Your task to perform on an android device: Search for Mexican restaurants on Maps Image 0: 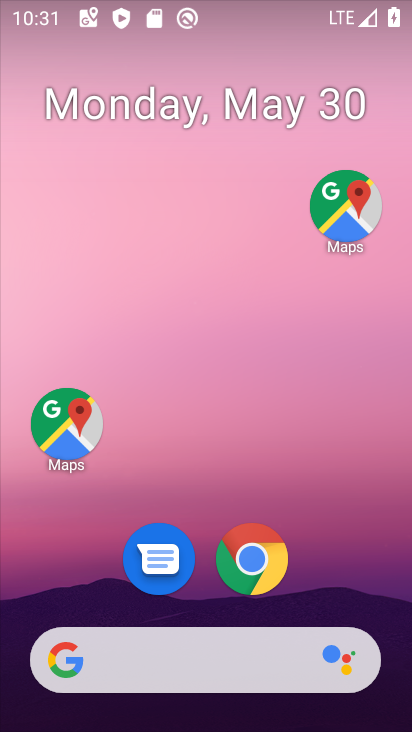
Step 0: click (346, 198)
Your task to perform on an android device: Search for Mexican restaurants on Maps Image 1: 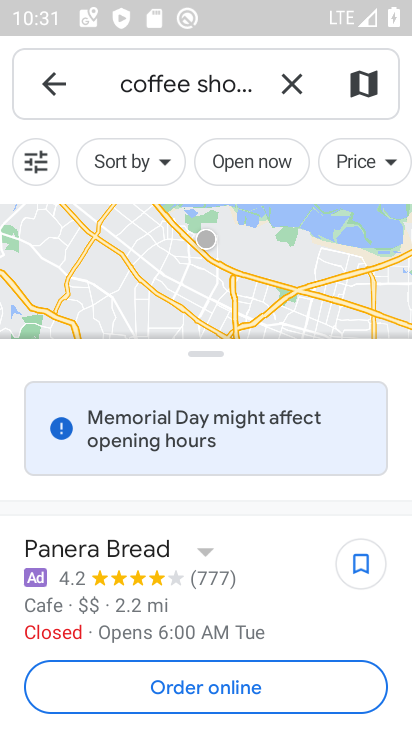
Step 1: click (222, 71)
Your task to perform on an android device: Search for Mexican restaurants on Maps Image 2: 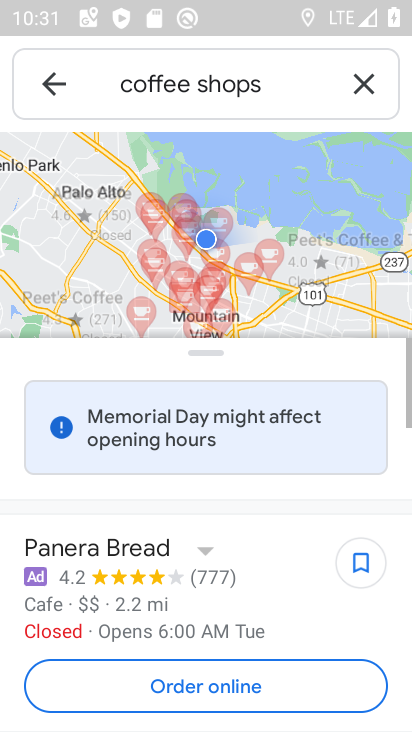
Step 2: click (367, 82)
Your task to perform on an android device: Search for Mexican restaurants on Maps Image 3: 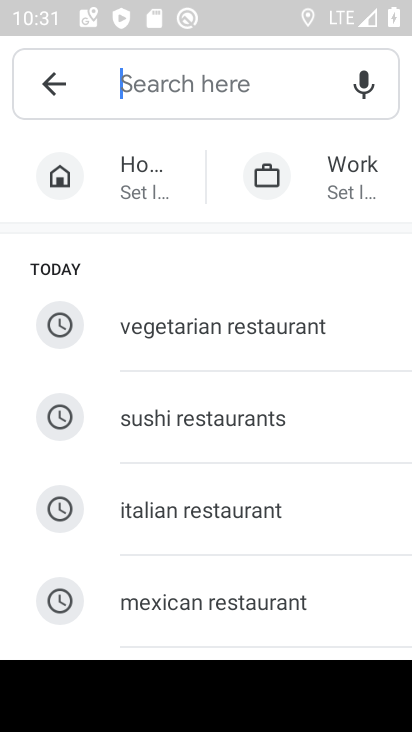
Step 3: click (277, 601)
Your task to perform on an android device: Search for Mexican restaurants on Maps Image 4: 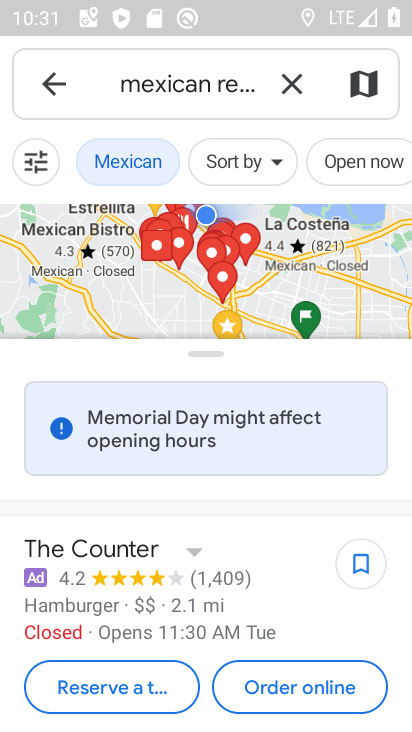
Step 4: type "s"
Your task to perform on an android device: Search for Mexican restaurants on Maps Image 5: 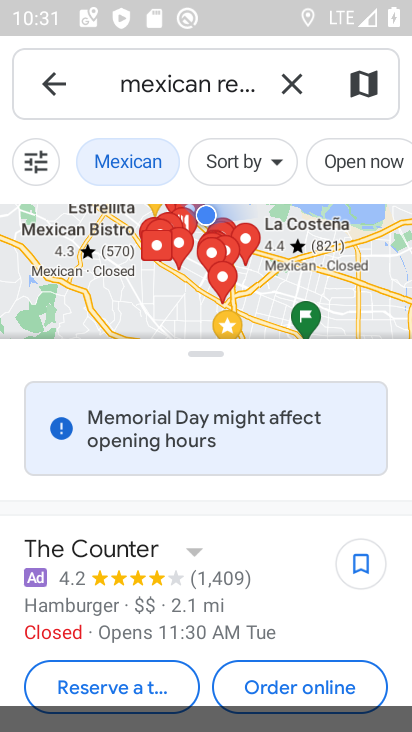
Step 5: type ""
Your task to perform on an android device: Search for Mexican restaurants on Maps Image 6: 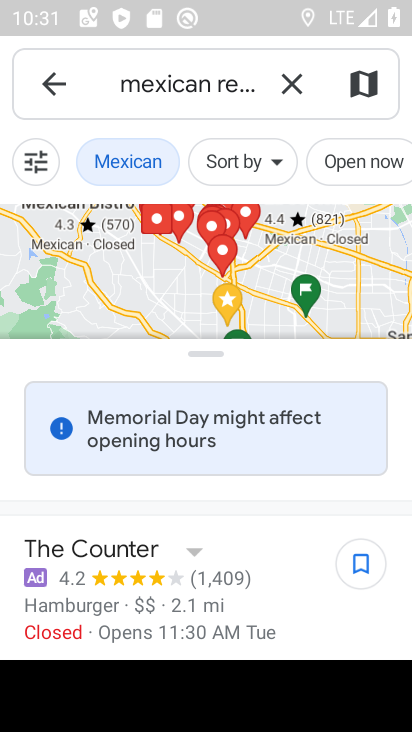
Step 6: press enter
Your task to perform on an android device: Search for Mexican restaurants on Maps Image 7: 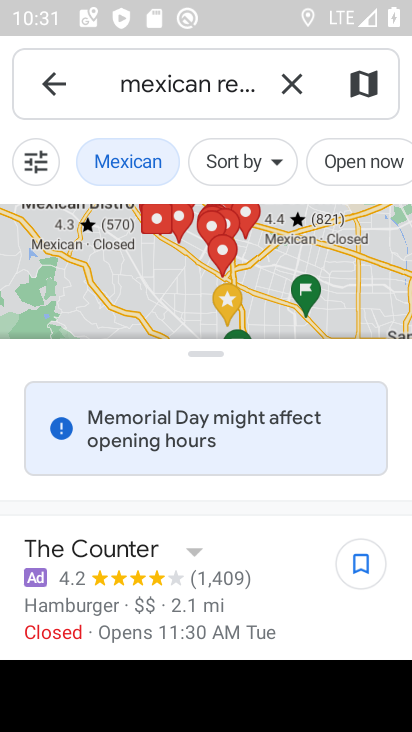
Step 7: task complete